Your task to perform on an android device: What is the news today? Image 0: 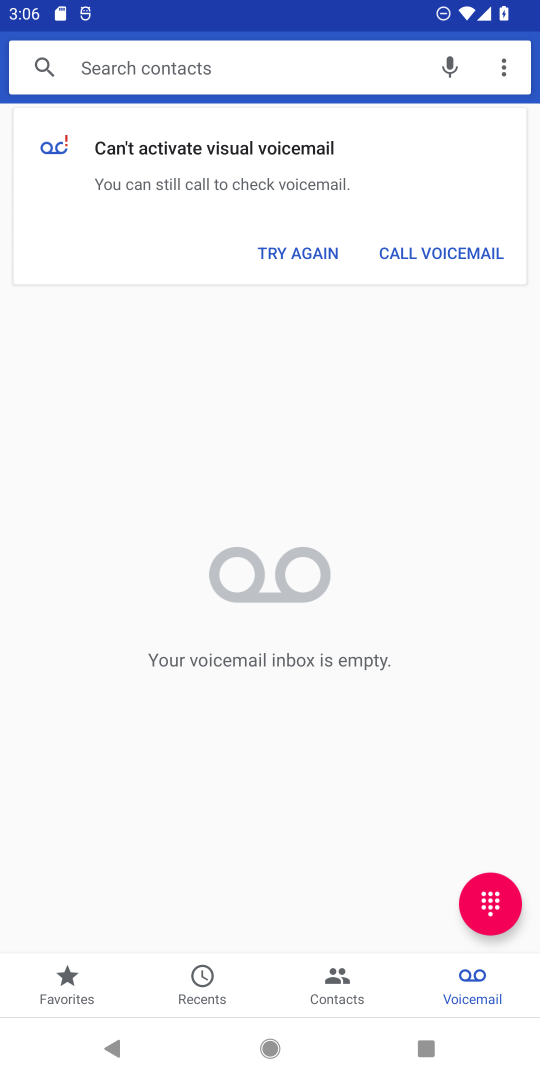
Step 0: press home button
Your task to perform on an android device: What is the news today? Image 1: 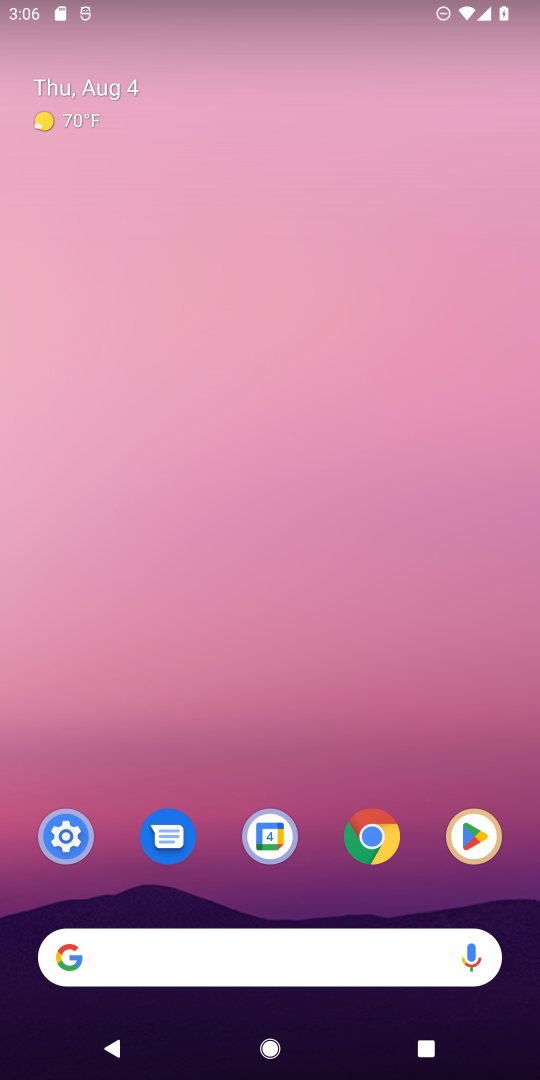
Step 1: click (374, 957)
Your task to perform on an android device: What is the news today? Image 2: 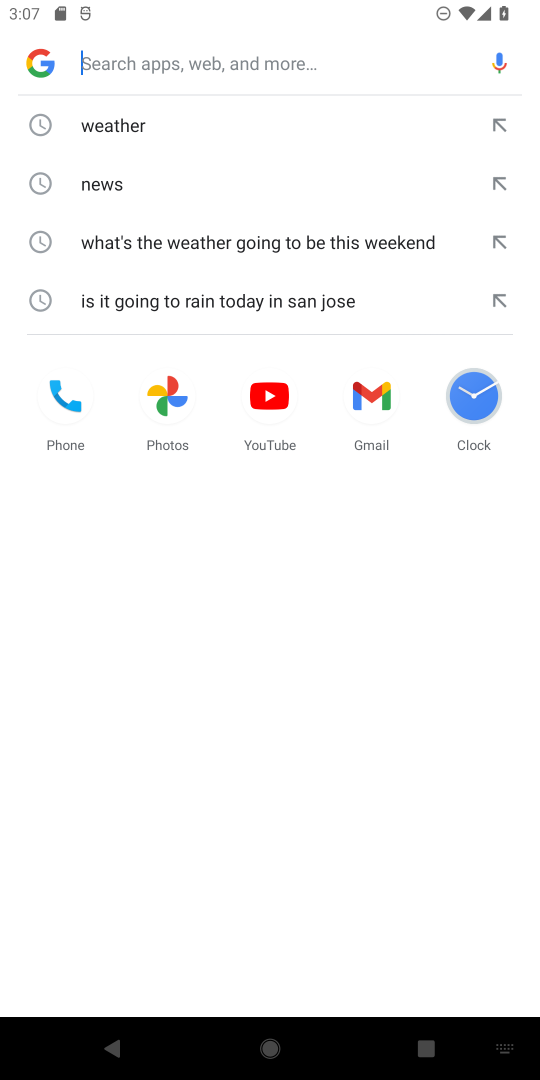
Step 2: type "news today"
Your task to perform on an android device: What is the news today? Image 3: 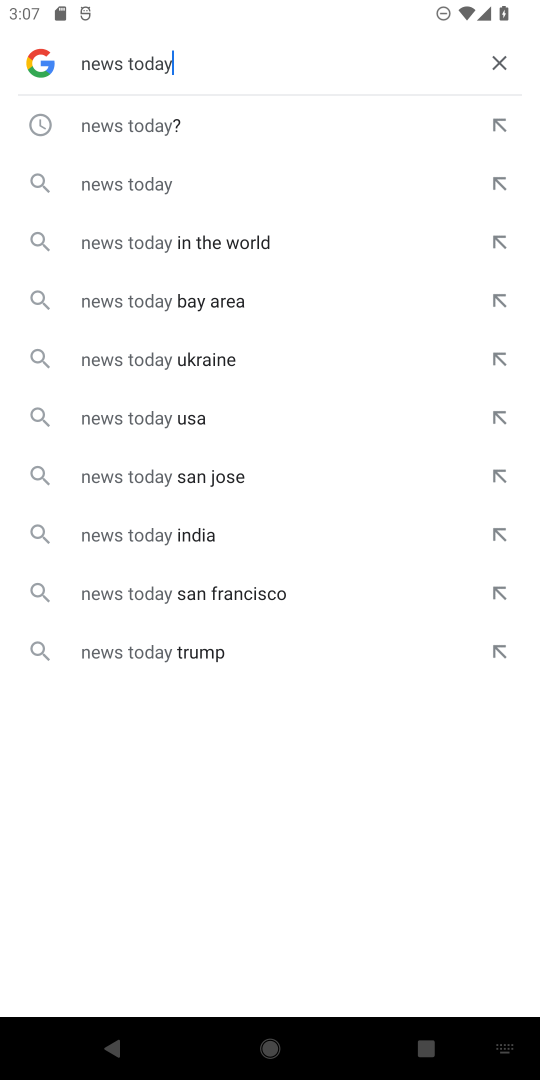
Step 3: click (253, 126)
Your task to perform on an android device: What is the news today? Image 4: 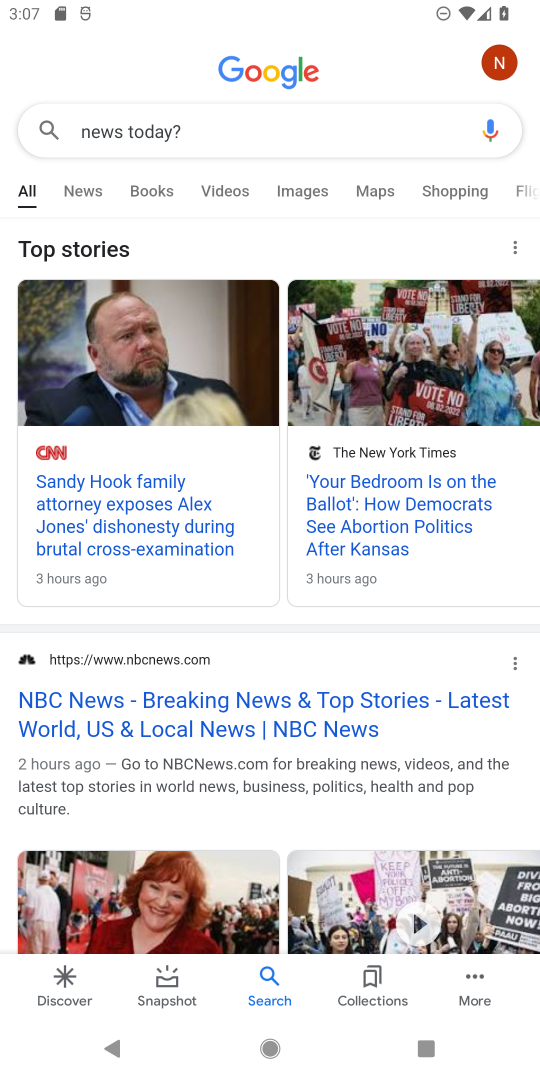
Step 4: task complete